Your task to perform on an android device: Show me popular games on the Play Store Image 0: 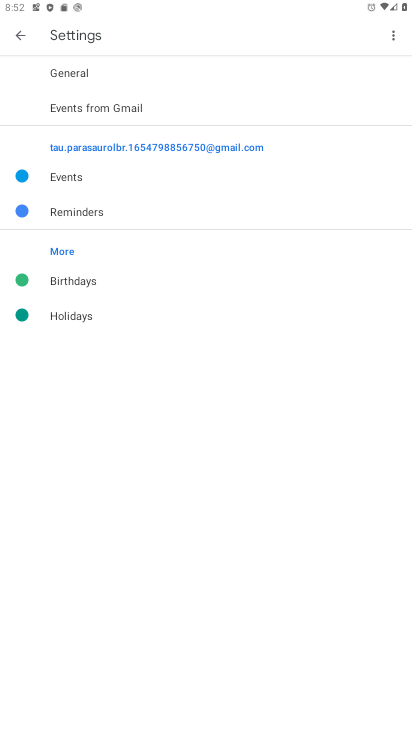
Step 0: press home button
Your task to perform on an android device: Show me popular games on the Play Store Image 1: 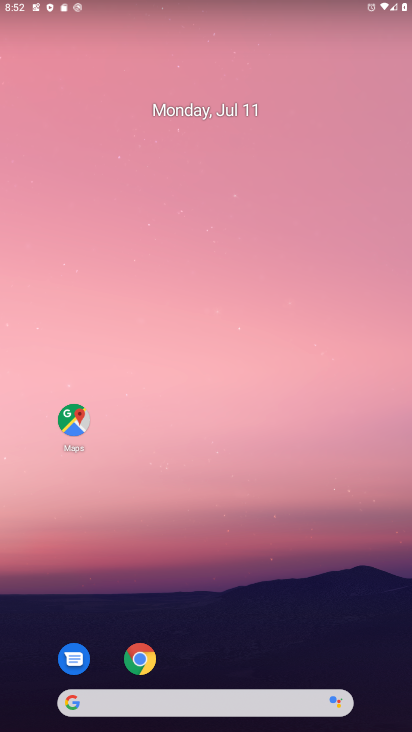
Step 1: drag from (243, 561) to (176, 181)
Your task to perform on an android device: Show me popular games on the Play Store Image 2: 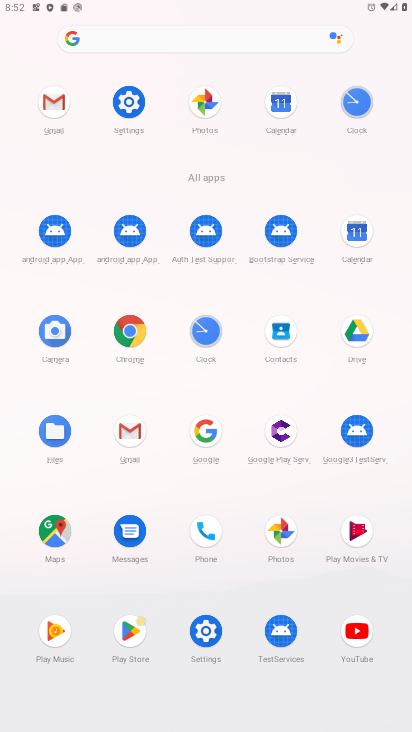
Step 2: click (131, 631)
Your task to perform on an android device: Show me popular games on the Play Store Image 3: 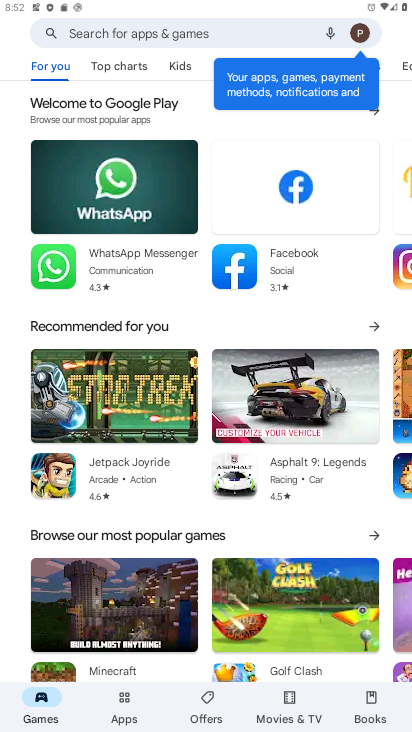
Step 3: task complete